Your task to perform on an android device: empty trash in the gmail app Image 0: 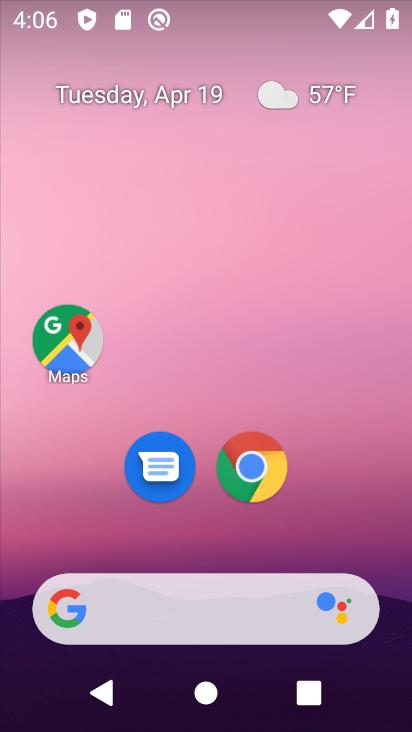
Step 0: drag from (291, 604) to (298, 191)
Your task to perform on an android device: empty trash in the gmail app Image 1: 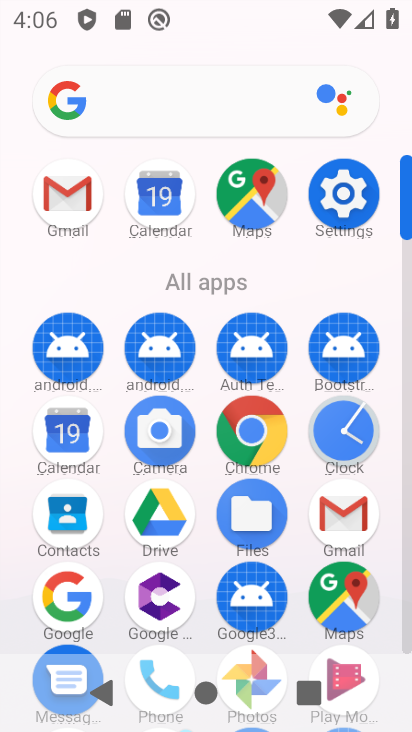
Step 1: click (357, 534)
Your task to perform on an android device: empty trash in the gmail app Image 2: 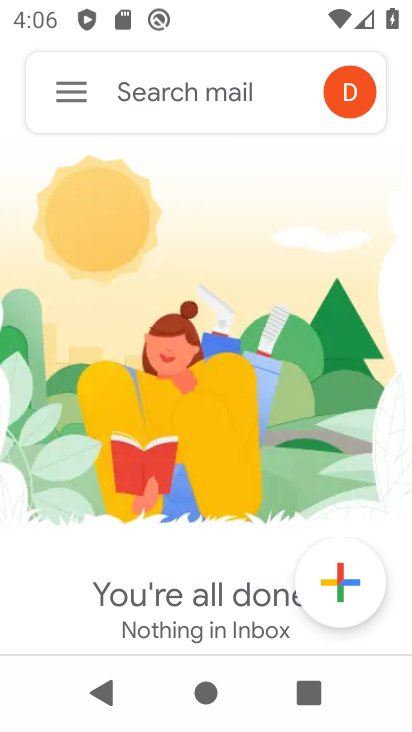
Step 2: click (65, 99)
Your task to perform on an android device: empty trash in the gmail app Image 3: 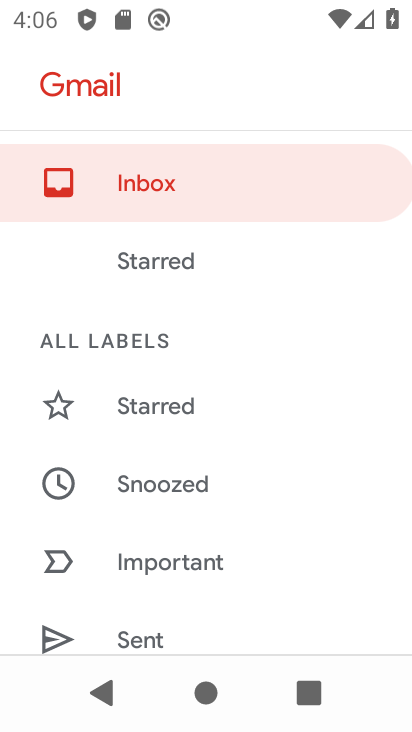
Step 3: drag from (217, 466) to (228, 237)
Your task to perform on an android device: empty trash in the gmail app Image 4: 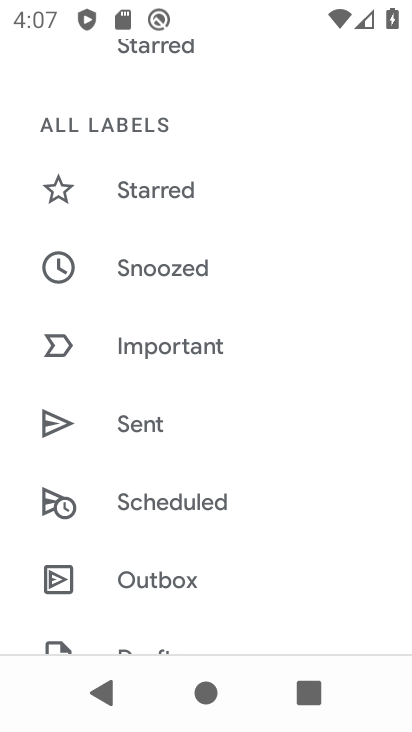
Step 4: drag from (172, 486) to (163, 211)
Your task to perform on an android device: empty trash in the gmail app Image 5: 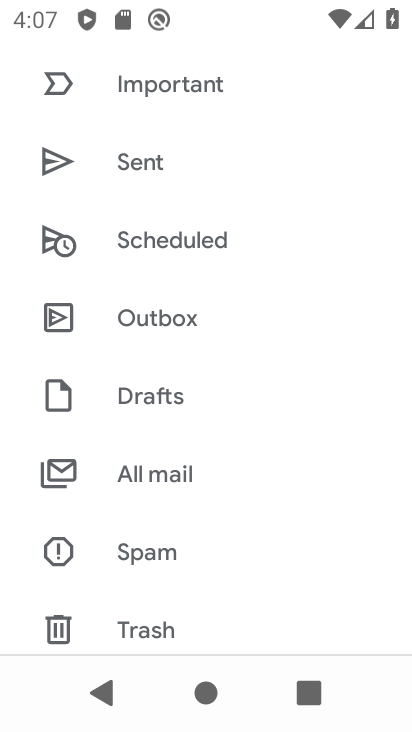
Step 5: click (190, 630)
Your task to perform on an android device: empty trash in the gmail app Image 6: 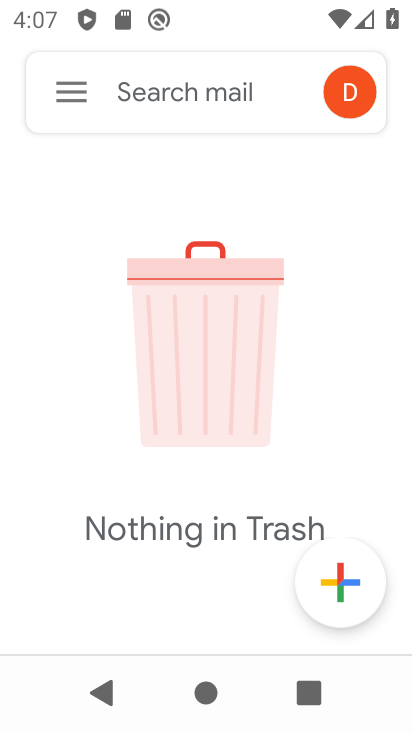
Step 6: task complete